Your task to perform on an android device: move a message to another label in the gmail app Image 0: 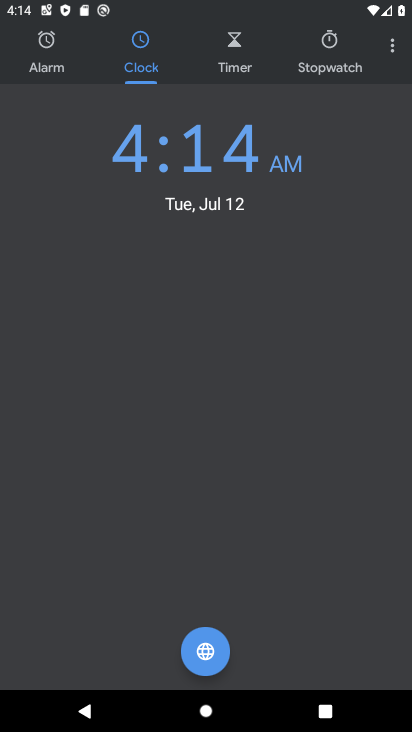
Step 0: press home button
Your task to perform on an android device: move a message to another label in the gmail app Image 1: 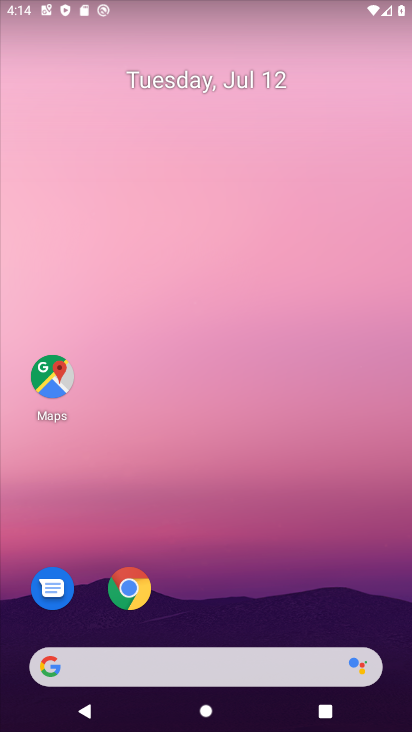
Step 1: drag from (211, 619) to (212, 220)
Your task to perform on an android device: move a message to another label in the gmail app Image 2: 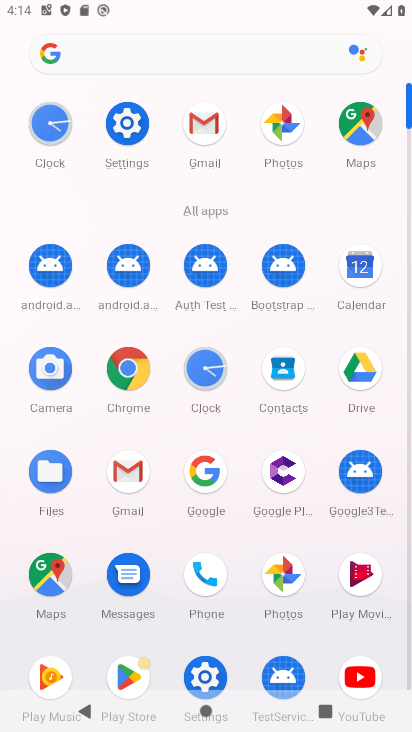
Step 2: click (197, 132)
Your task to perform on an android device: move a message to another label in the gmail app Image 3: 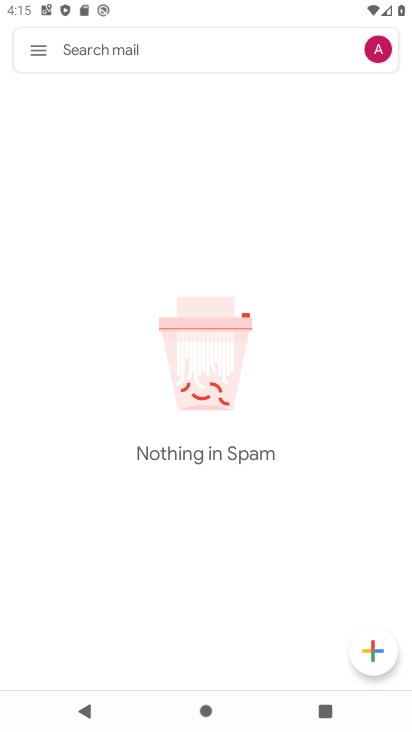
Step 3: click (37, 59)
Your task to perform on an android device: move a message to another label in the gmail app Image 4: 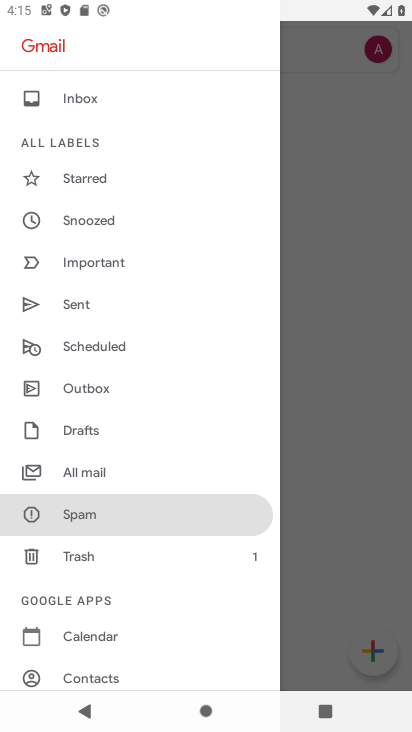
Step 4: click (104, 106)
Your task to perform on an android device: move a message to another label in the gmail app Image 5: 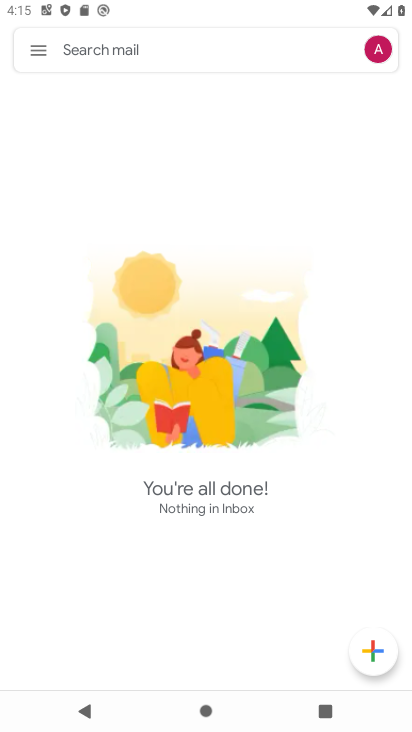
Step 5: task complete